Your task to perform on an android device: Open Maps and search for coffee Image 0: 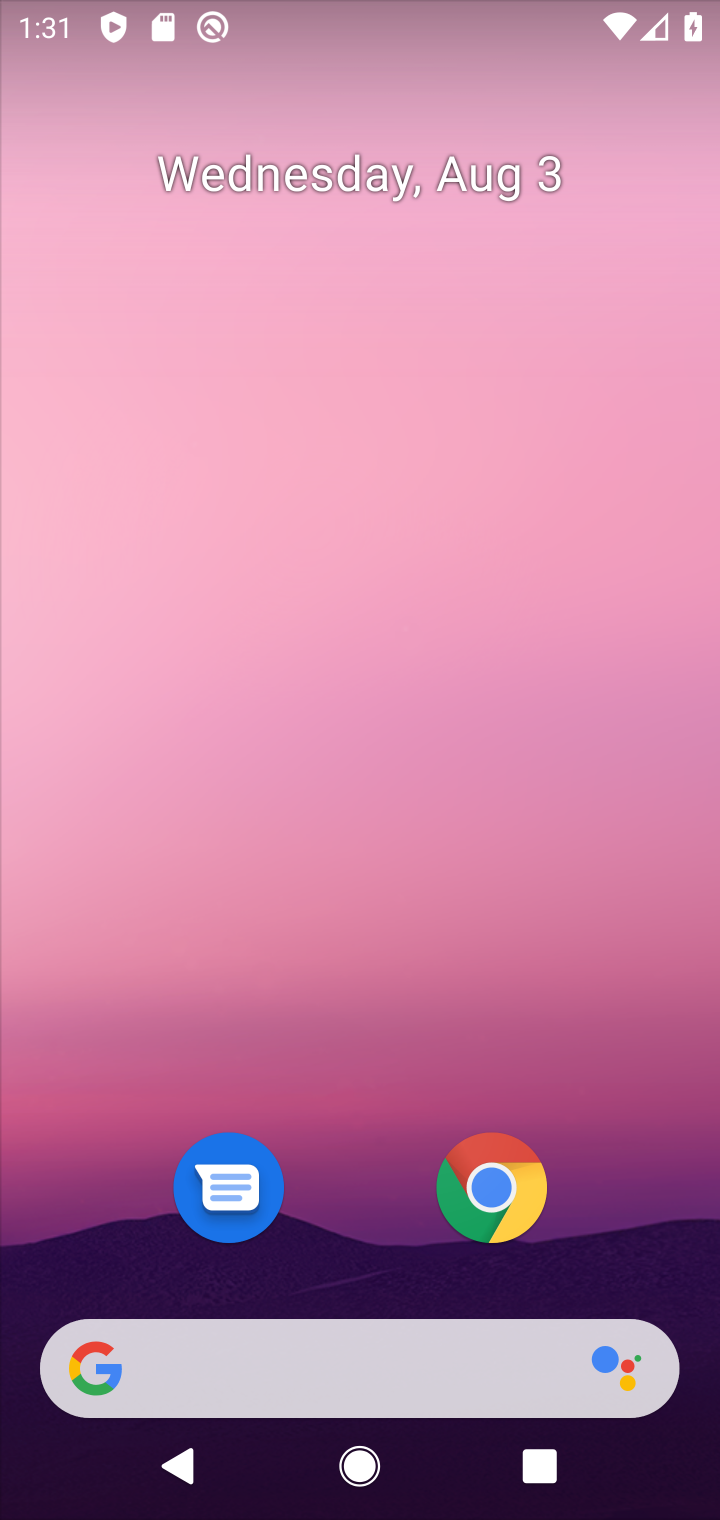
Step 0: drag from (394, 1101) to (517, 54)
Your task to perform on an android device: Open Maps and search for coffee Image 1: 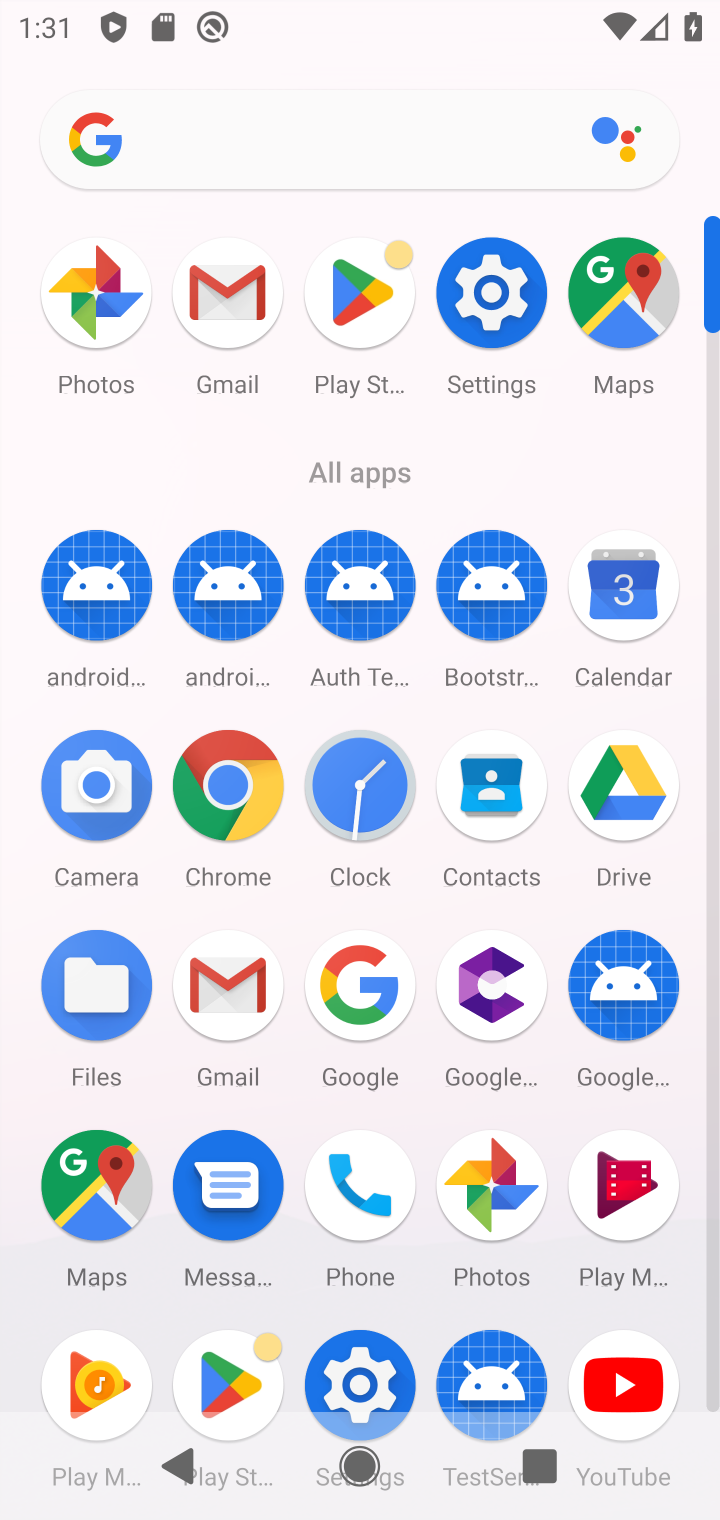
Step 1: click (604, 306)
Your task to perform on an android device: Open Maps and search for coffee Image 2: 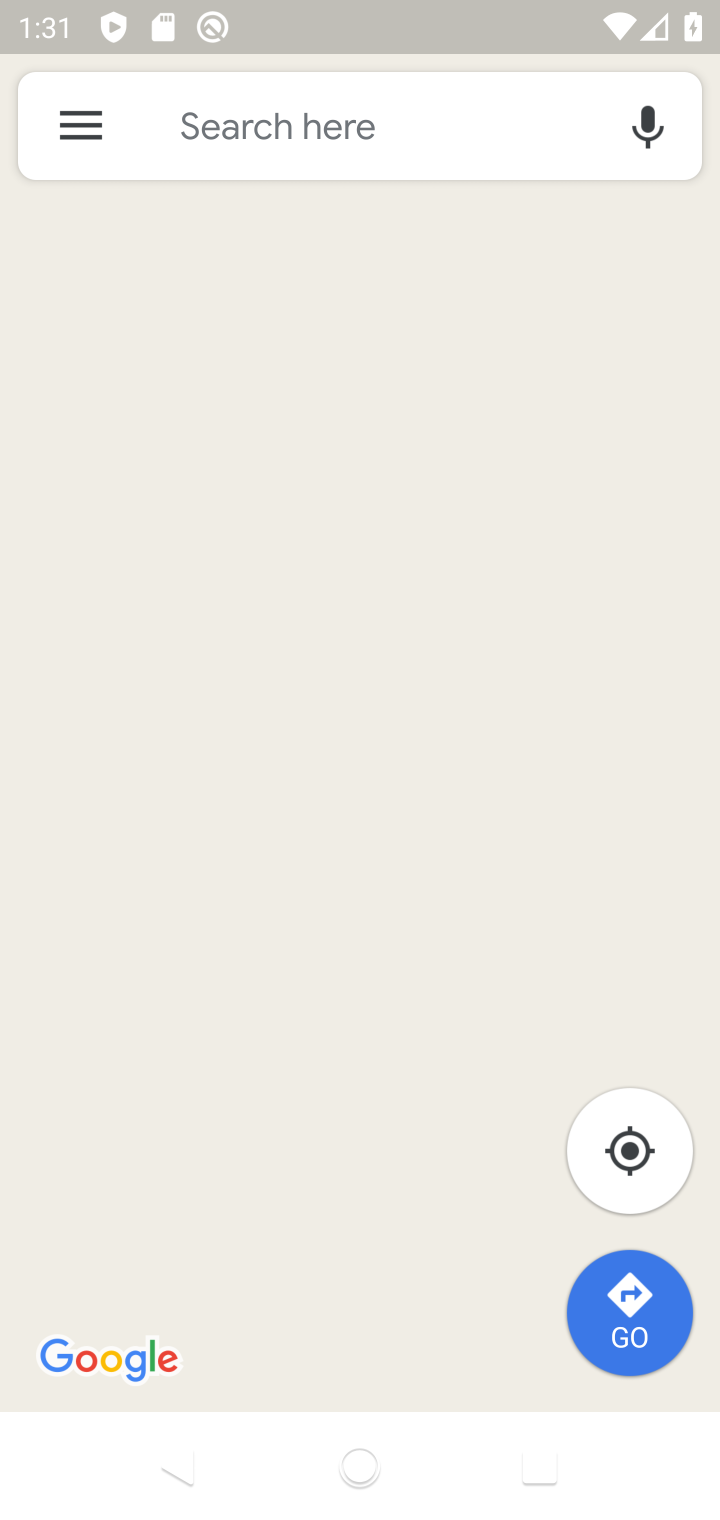
Step 2: click (462, 137)
Your task to perform on an android device: Open Maps and search for coffee Image 3: 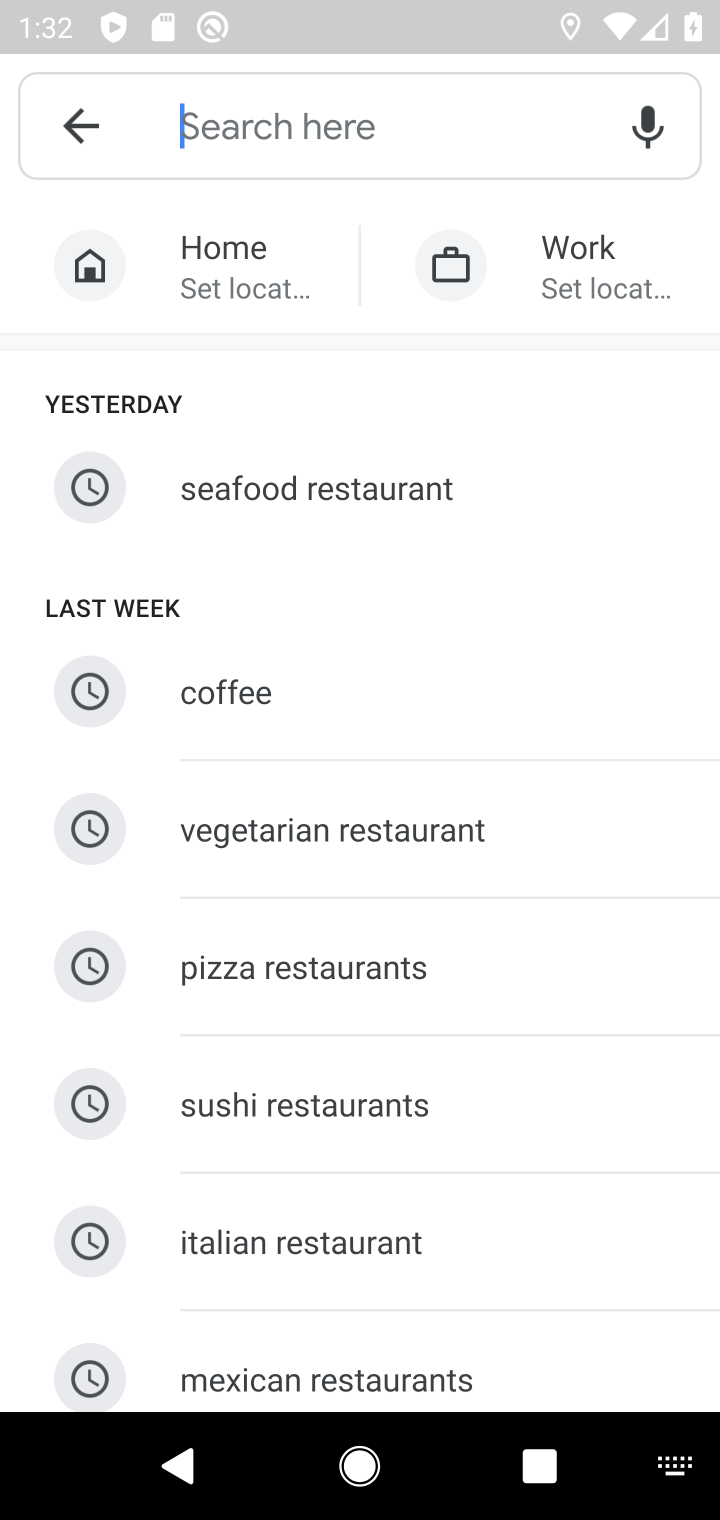
Step 3: type "coffee"
Your task to perform on an android device: Open Maps and search for coffee Image 4: 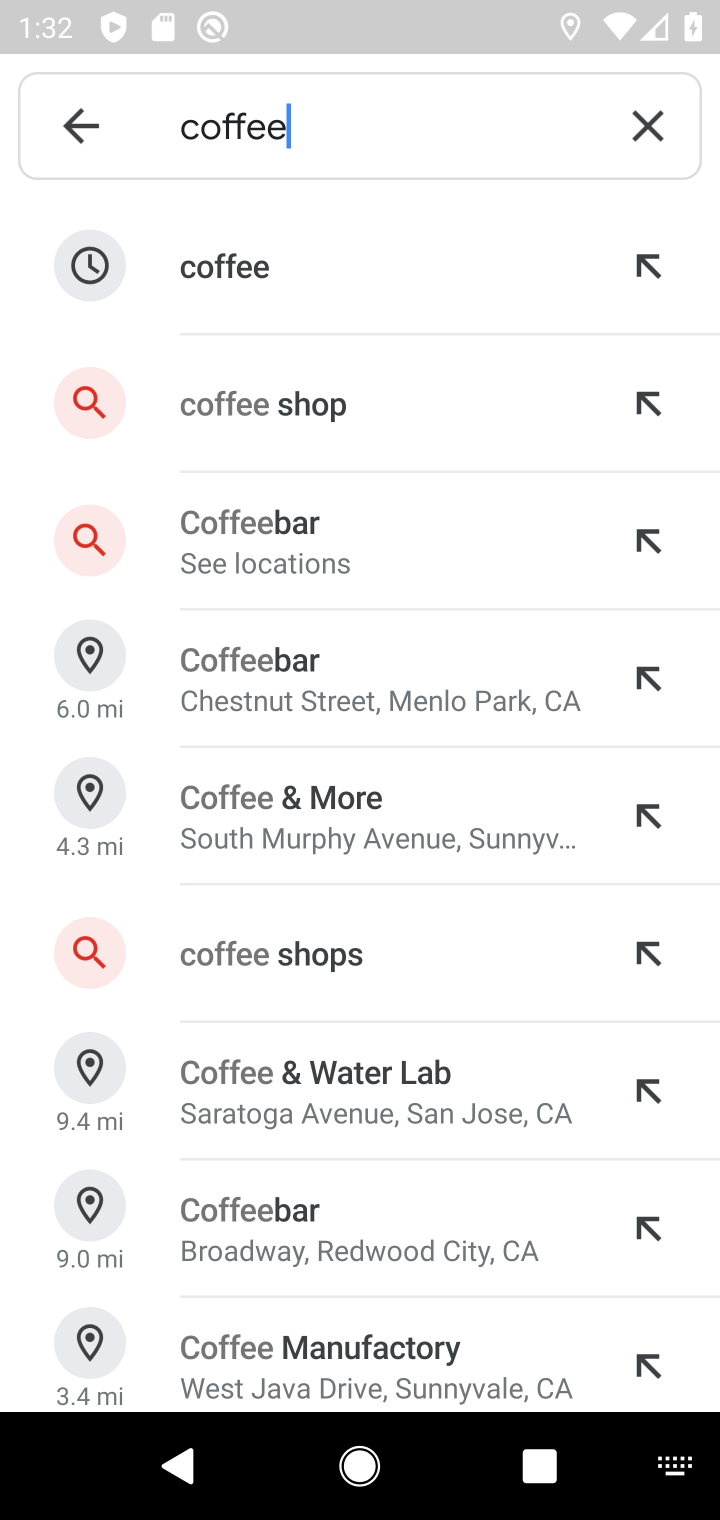
Step 4: click (257, 269)
Your task to perform on an android device: Open Maps and search for coffee Image 5: 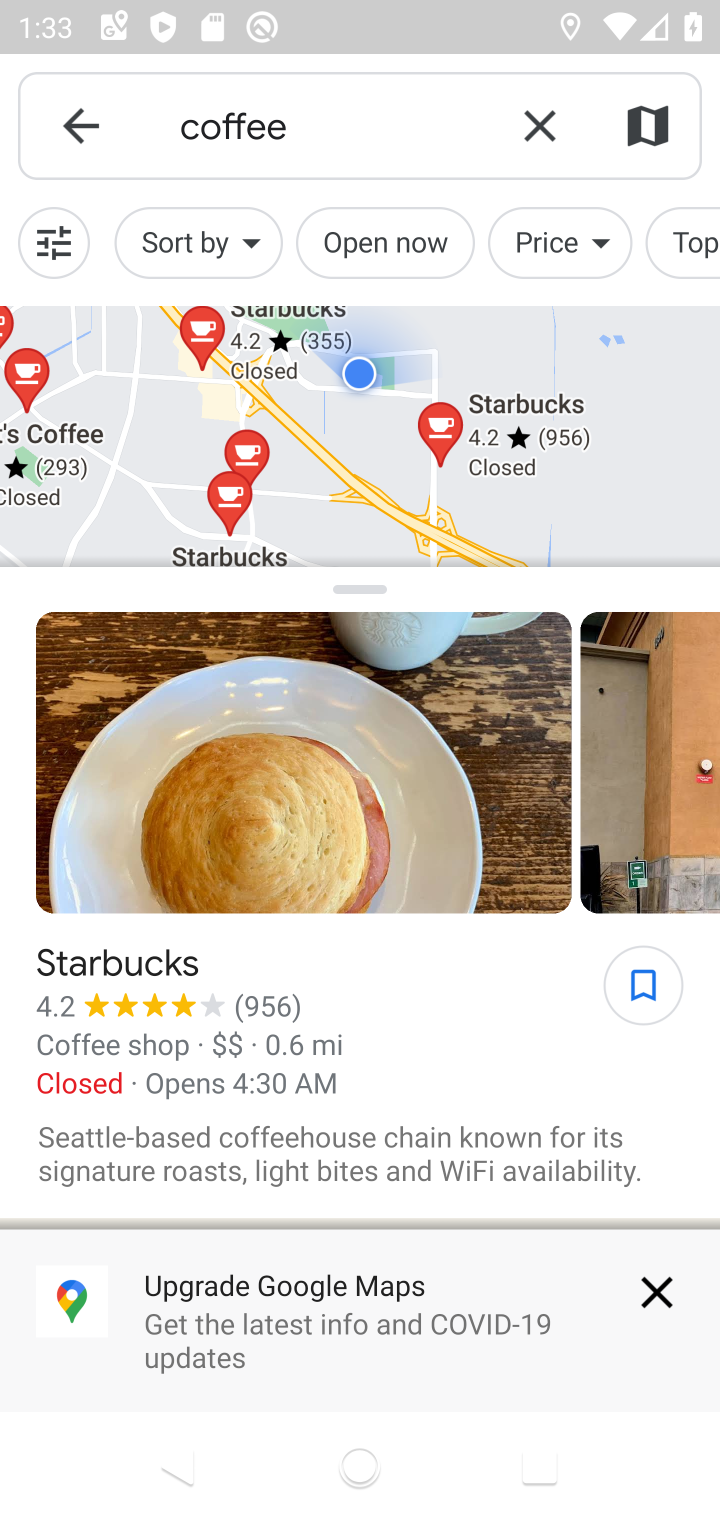
Step 5: task complete